Your task to perform on an android device: What's the weather going to be tomorrow? Image 0: 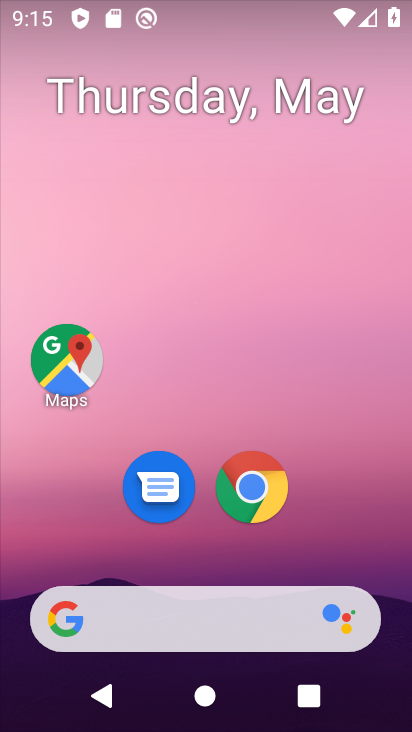
Step 0: click (180, 629)
Your task to perform on an android device: What's the weather going to be tomorrow? Image 1: 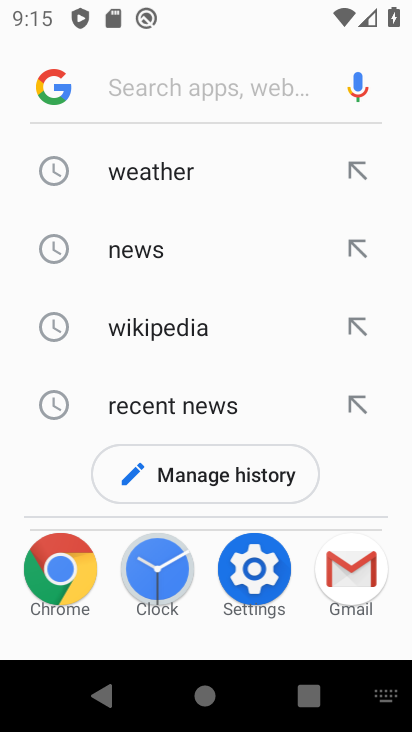
Step 1: click (173, 172)
Your task to perform on an android device: What's the weather going to be tomorrow? Image 2: 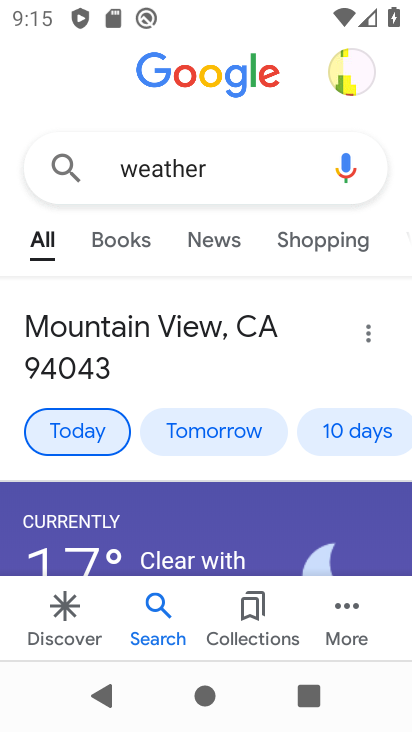
Step 2: click (189, 427)
Your task to perform on an android device: What's the weather going to be tomorrow? Image 3: 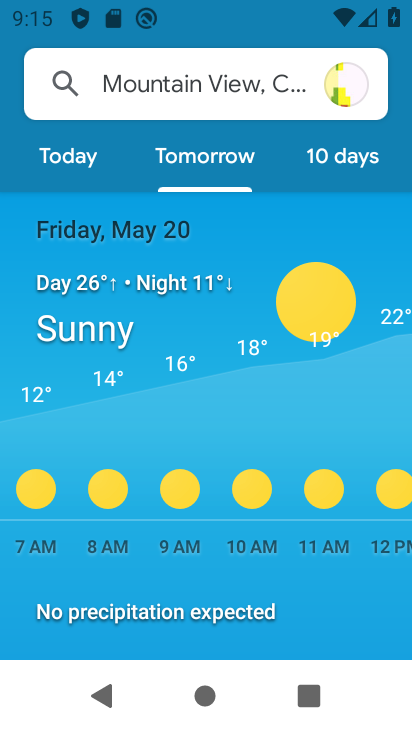
Step 3: task complete